Your task to perform on an android device: Open Chrome and go to the settings page Image 0: 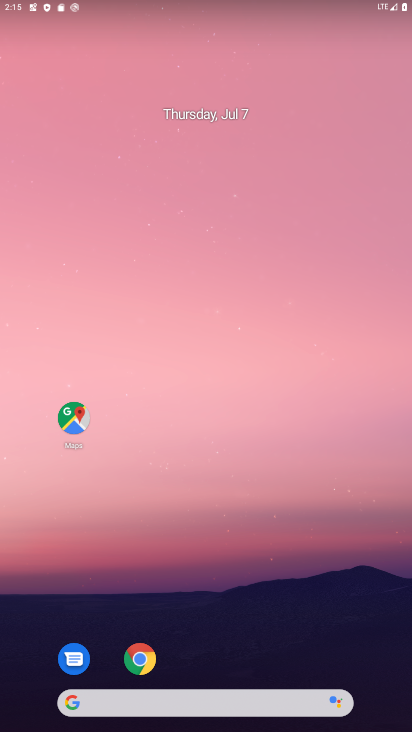
Step 0: click (140, 658)
Your task to perform on an android device: Open Chrome and go to the settings page Image 1: 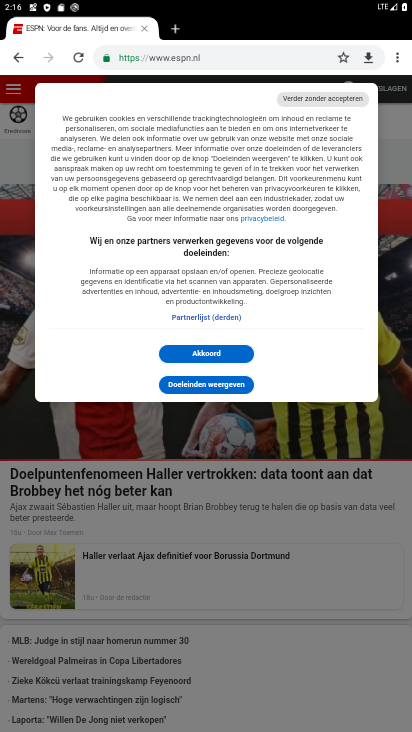
Step 1: click (398, 61)
Your task to perform on an android device: Open Chrome and go to the settings page Image 2: 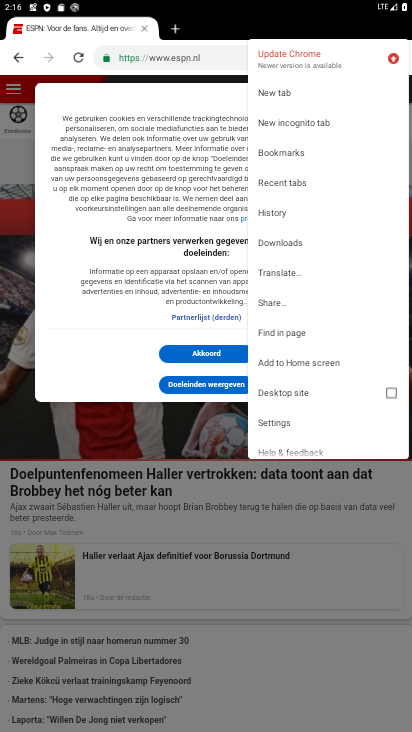
Step 2: click (284, 422)
Your task to perform on an android device: Open Chrome and go to the settings page Image 3: 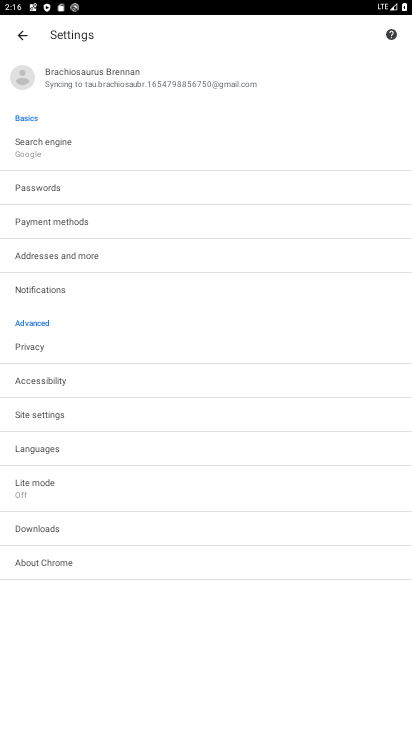
Step 3: task complete